Your task to perform on an android device: Do I have any events this weekend? Image 0: 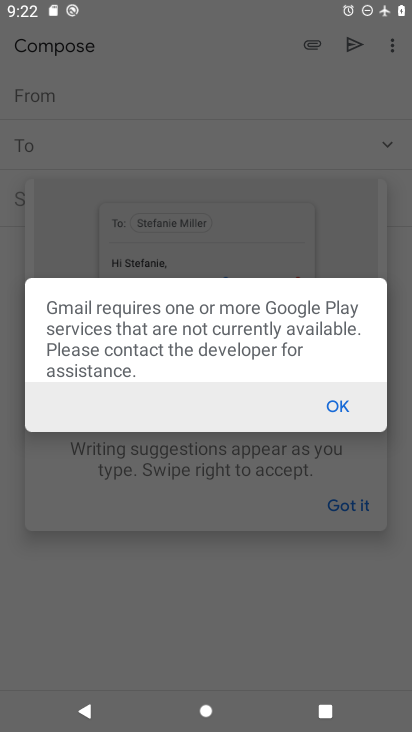
Step 0: press home button
Your task to perform on an android device: Do I have any events this weekend? Image 1: 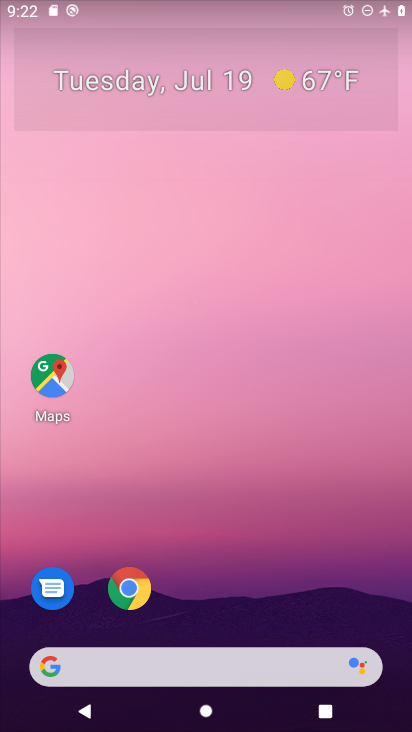
Step 1: drag from (320, 559) to (340, 43)
Your task to perform on an android device: Do I have any events this weekend? Image 2: 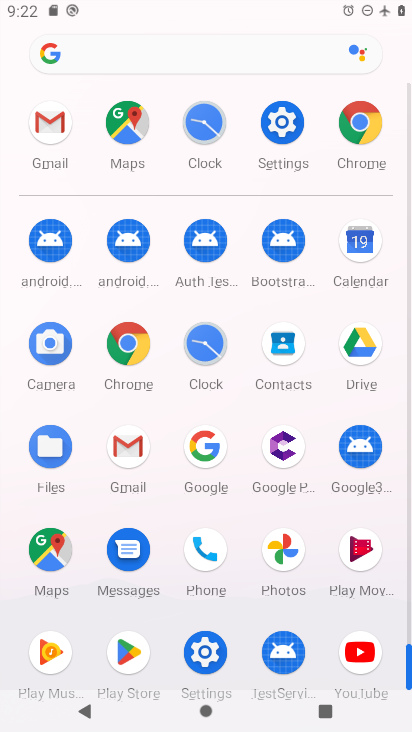
Step 2: click (363, 257)
Your task to perform on an android device: Do I have any events this weekend? Image 3: 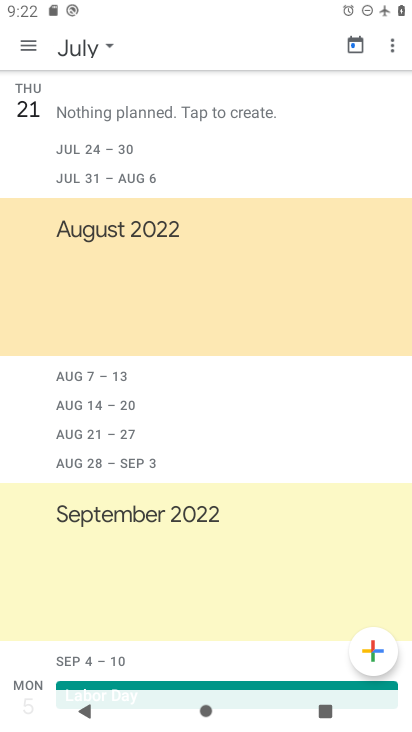
Step 3: task complete